Your task to perform on an android device: change the clock style Image 0: 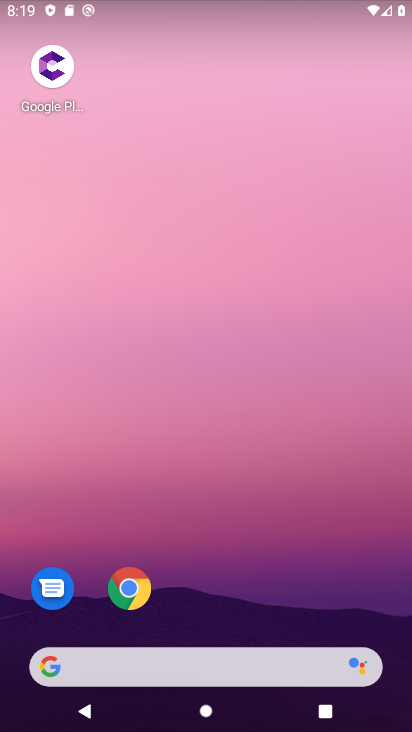
Step 0: drag from (283, 604) to (227, 133)
Your task to perform on an android device: change the clock style Image 1: 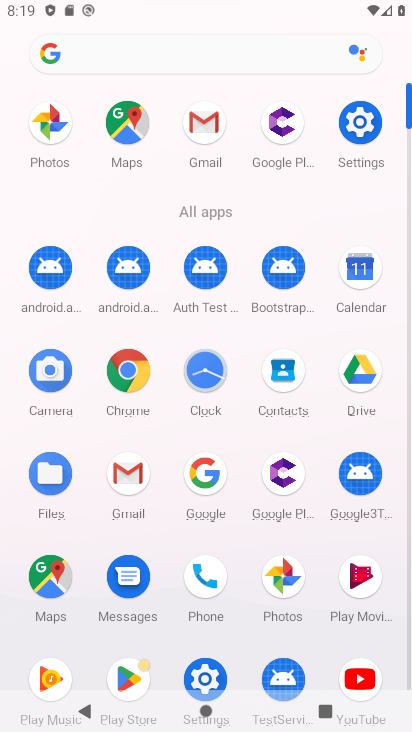
Step 1: click (202, 364)
Your task to perform on an android device: change the clock style Image 2: 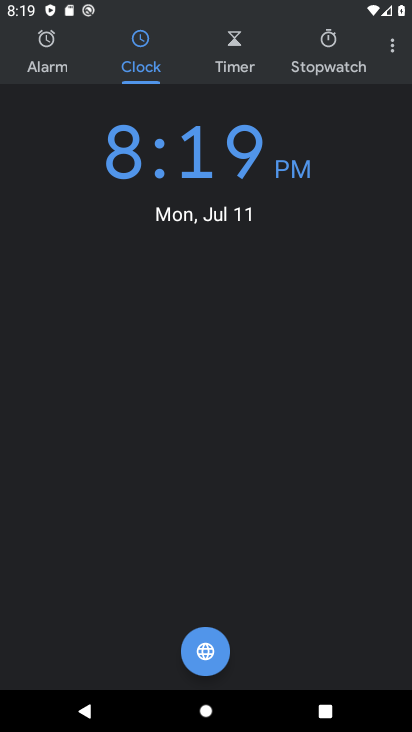
Step 2: click (391, 39)
Your task to perform on an android device: change the clock style Image 3: 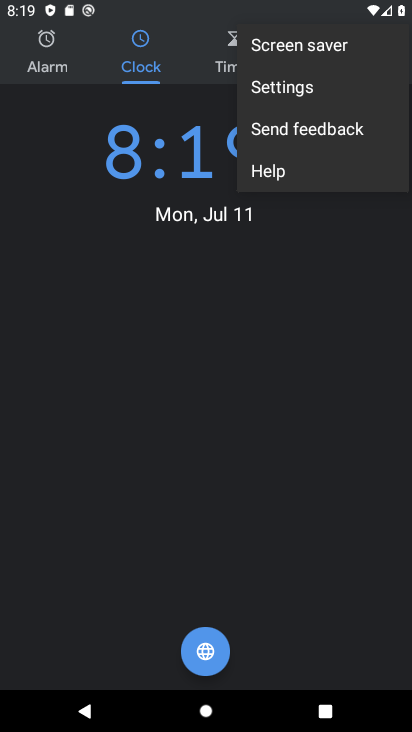
Step 3: click (358, 86)
Your task to perform on an android device: change the clock style Image 4: 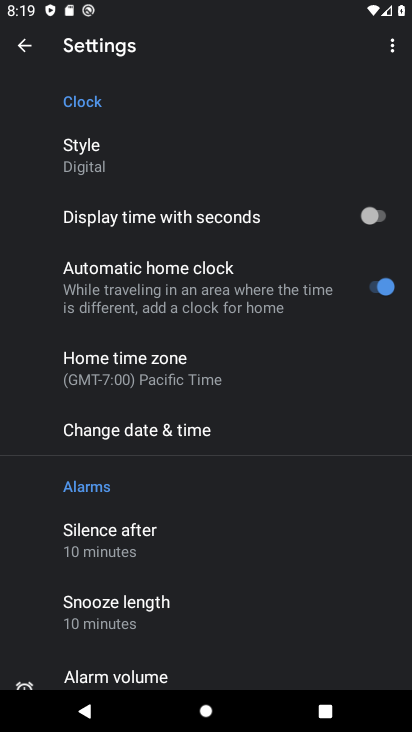
Step 4: click (163, 156)
Your task to perform on an android device: change the clock style Image 5: 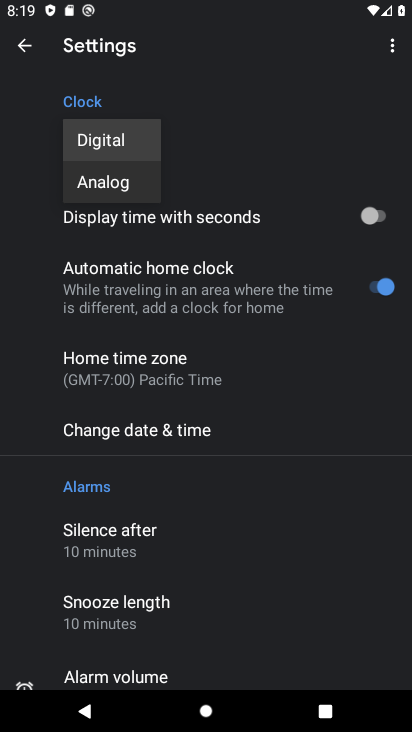
Step 5: click (133, 178)
Your task to perform on an android device: change the clock style Image 6: 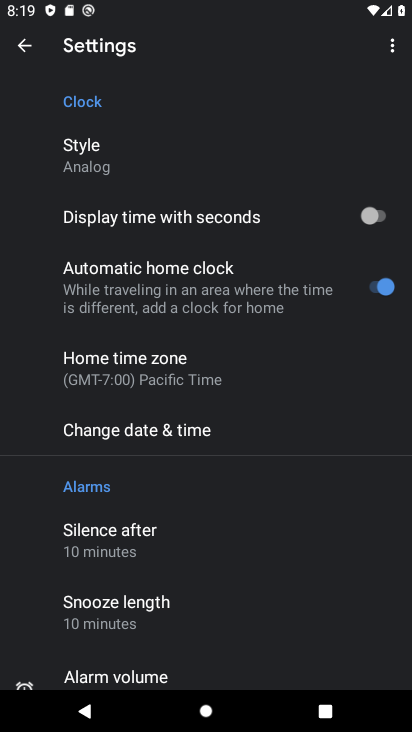
Step 6: task complete